Your task to perform on an android device: What's on my calendar today? Image 0: 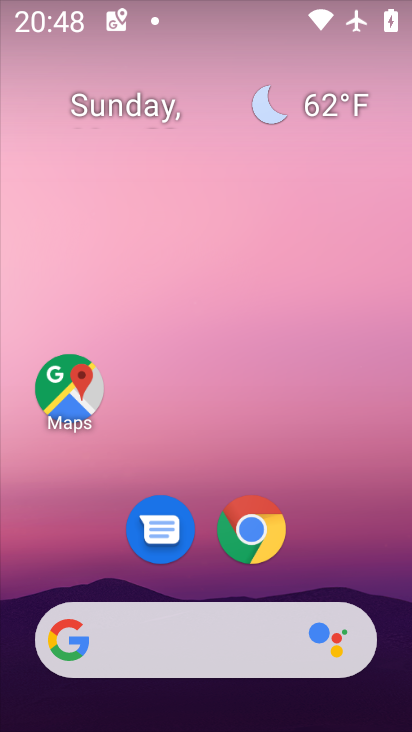
Step 0: drag from (279, 655) to (106, 65)
Your task to perform on an android device: What's on my calendar today? Image 1: 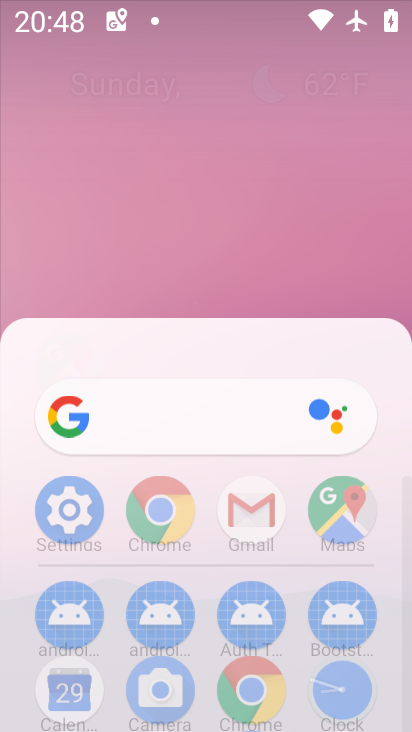
Step 1: click (113, 102)
Your task to perform on an android device: What's on my calendar today? Image 2: 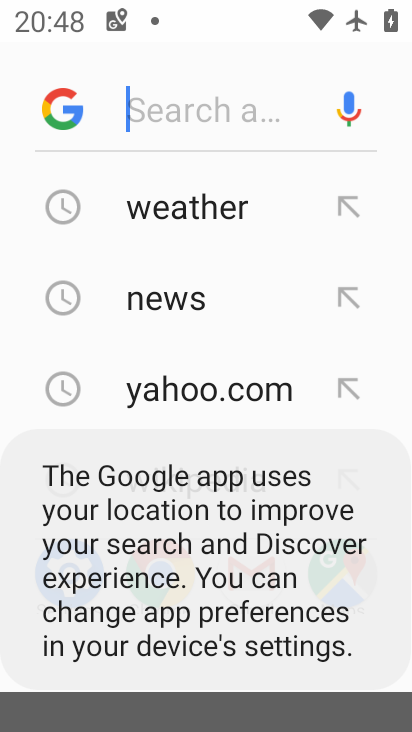
Step 2: press back button
Your task to perform on an android device: What's on my calendar today? Image 3: 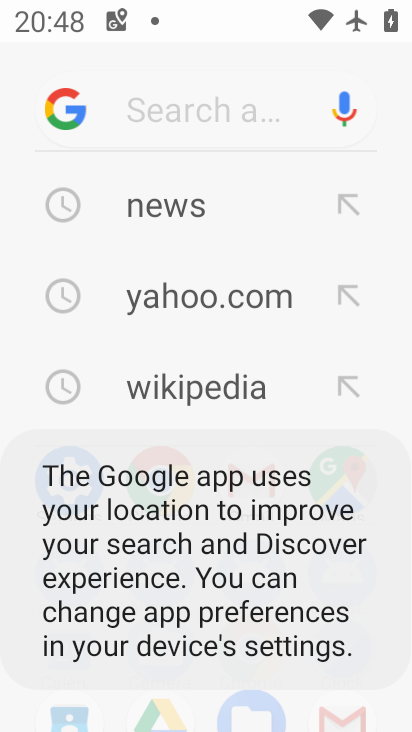
Step 3: press back button
Your task to perform on an android device: What's on my calendar today? Image 4: 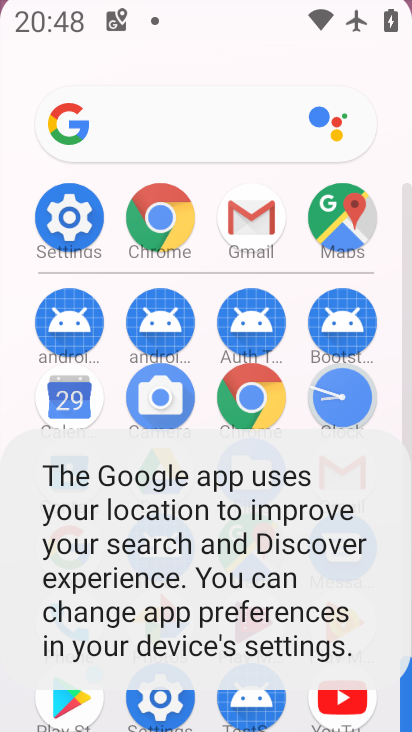
Step 4: press home button
Your task to perform on an android device: What's on my calendar today? Image 5: 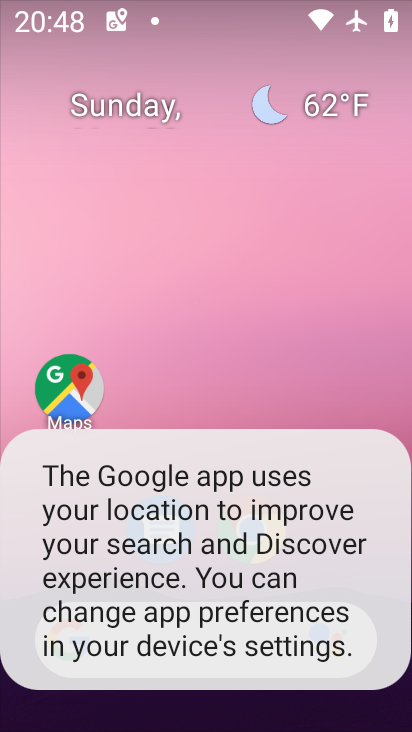
Step 5: press home button
Your task to perform on an android device: What's on my calendar today? Image 6: 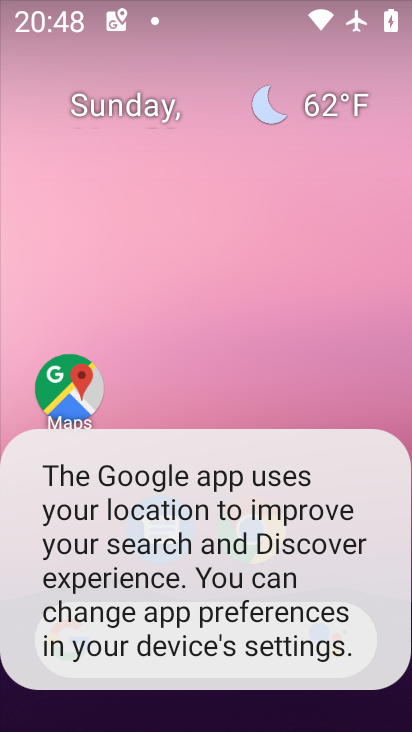
Step 6: press home button
Your task to perform on an android device: What's on my calendar today? Image 7: 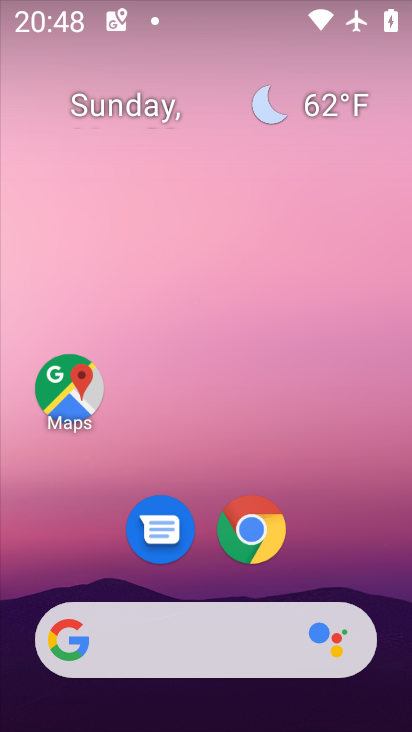
Step 7: drag from (0, 248) to (406, 489)
Your task to perform on an android device: What's on my calendar today? Image 8: 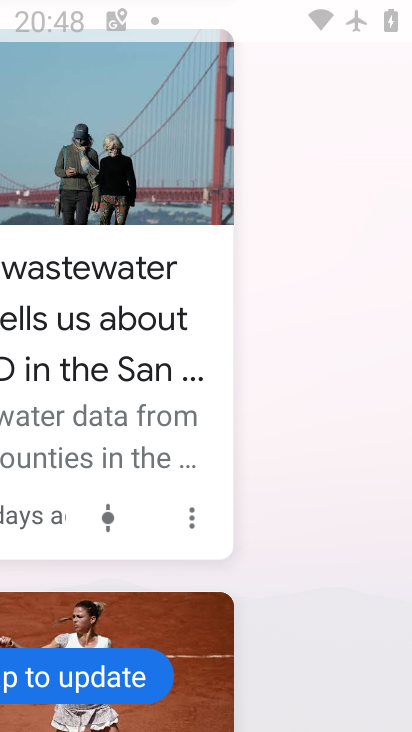
Step 8: drag from (6, 285) to (387, 411)
Your task to perform on an android device: What's on my calendar today? Image 9: 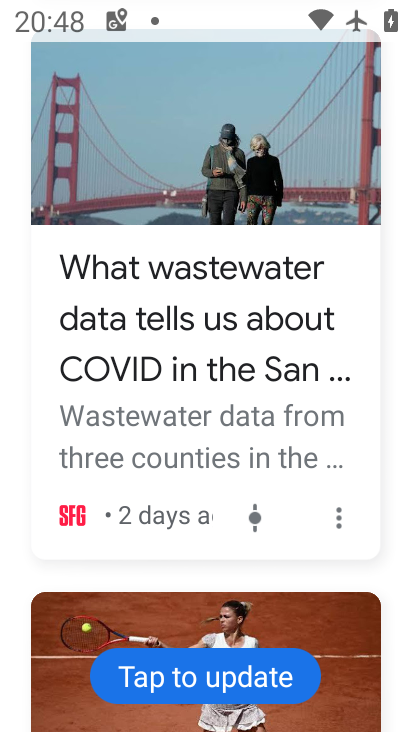
Step 9: drag from (191, 433) to (188, 111)
Your task to perform on an android device: What's on my calendar today? Image 10: 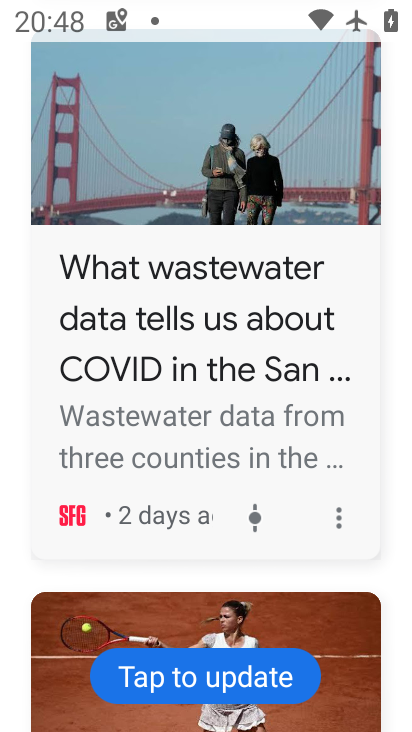
Step 10: drag from (245, 343) to (255, 168)
Your task to perform on an android device: What's on my calendar today? Image 11: 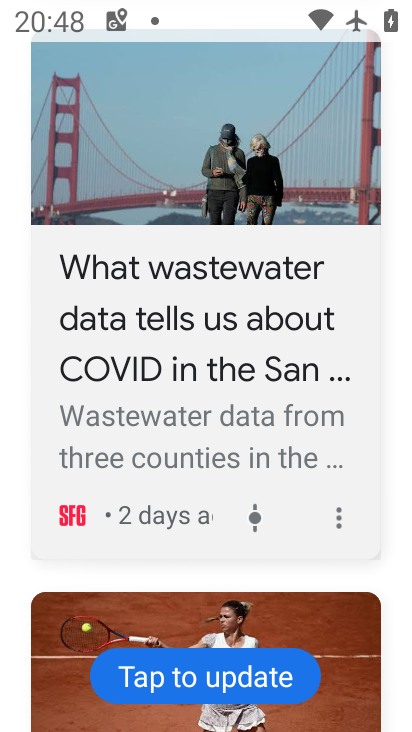
Step 11: drag from (256, 443) to (265, 134)
Your task to perform on an android device: What's on my calendar today? Image 12: 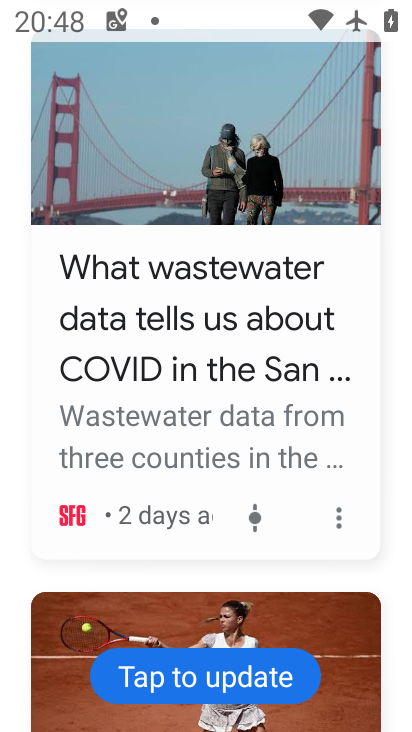
Step 12: drag from (244, 404) to (233, 133)
Your task to perform on an android device: What's on my calendar today? Image 13: 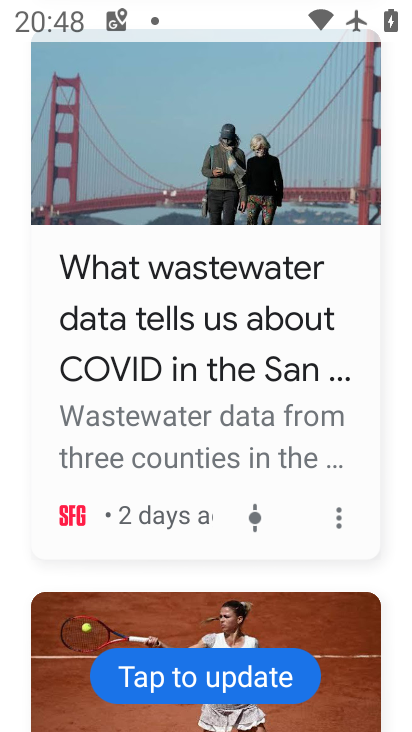
Step 13: drag from (176, 397) to (172, 93)
Your task to perform on an android device: What's on my calendar today? Image 14: 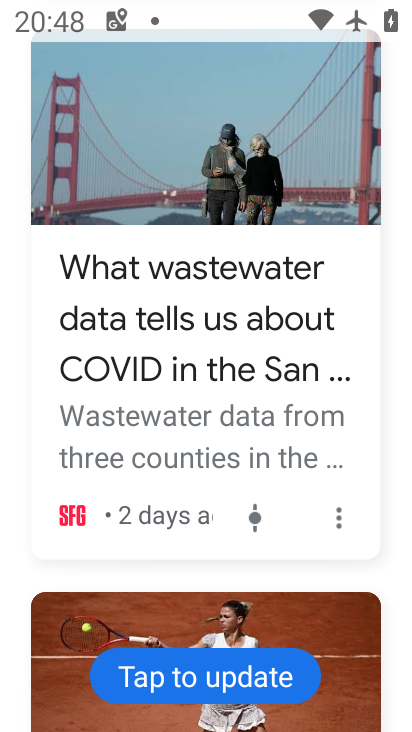
Step 14: drag from (123, 451) to (149, 152)
Your task to perform on an android device: What's on my calendar today? Image 15: 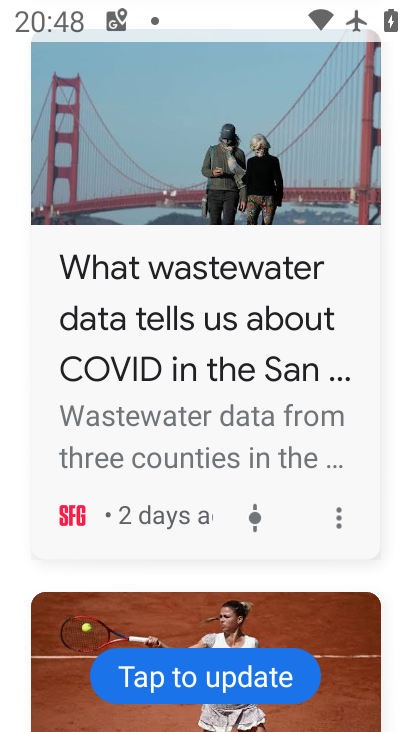
Step 15: click (212, 200)
Your task to perform on an android device: What's on my calendar today? Image 16: 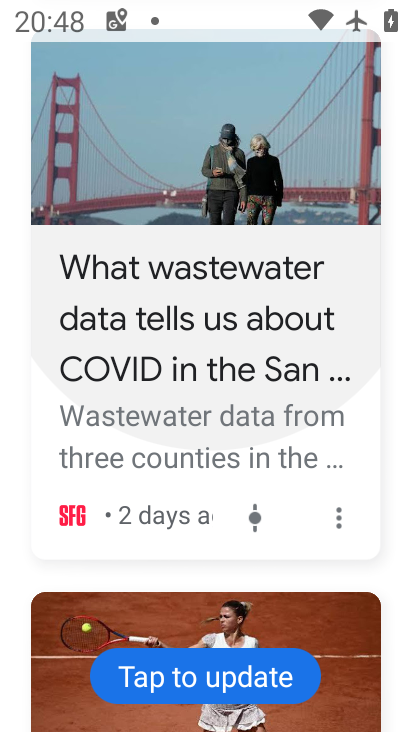
Step 16: task complete